Your task to perform on an android device: Open sound settings Image 0: 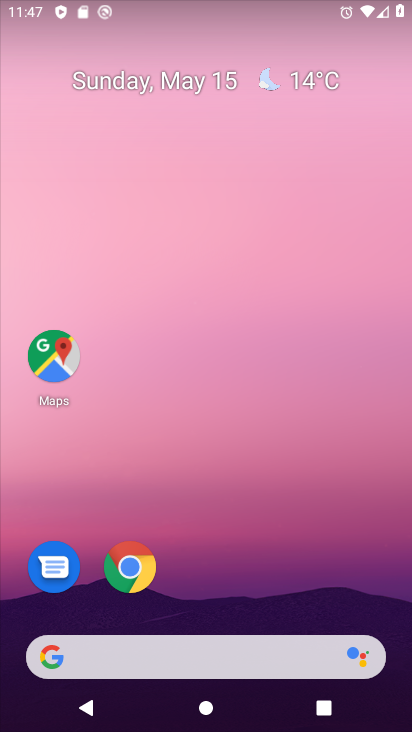
Step 0: drag from (240, 555) to (347, 24)
Your task to perform on an android device: Open sound settings Image 1: 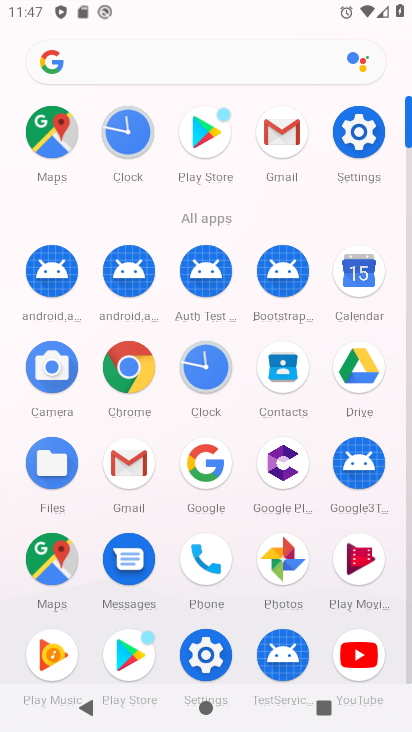
Step 1: click (355, 137)
Your task to perform on an android device: Open sound settings Image 2: 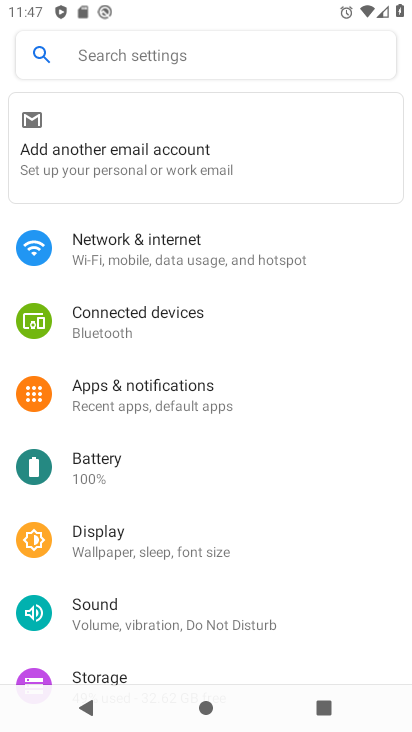
Step 2: click (161, 622)
Your task to perform on an android device: Open sound settings Image 3: 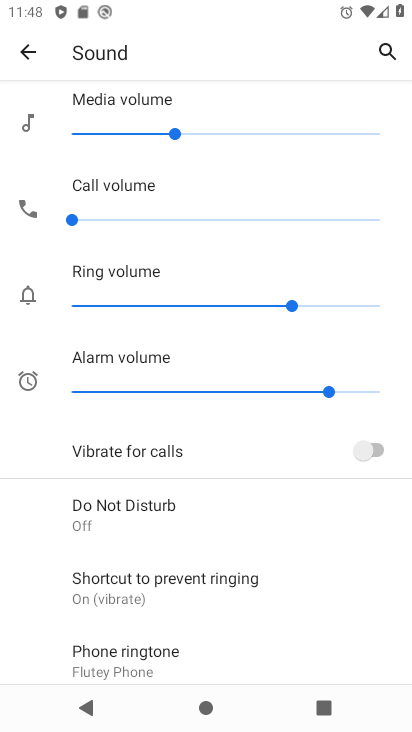
Step 3: task complete